Your task to perform on an android device: Open battery settings Image 0: 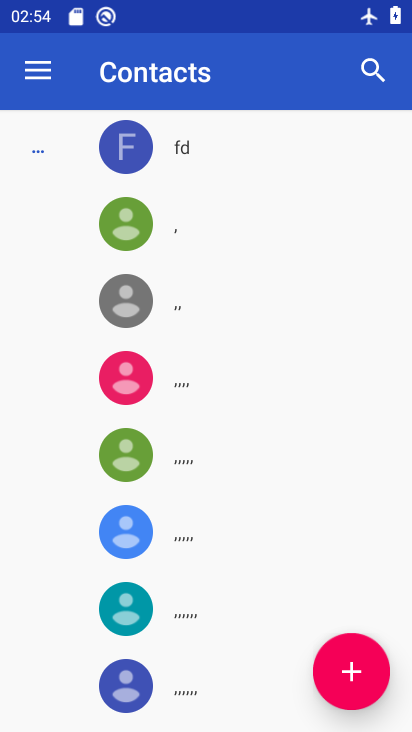
Step 0: press home button
Your task to perform on an android device: Open battery settings Image 1: 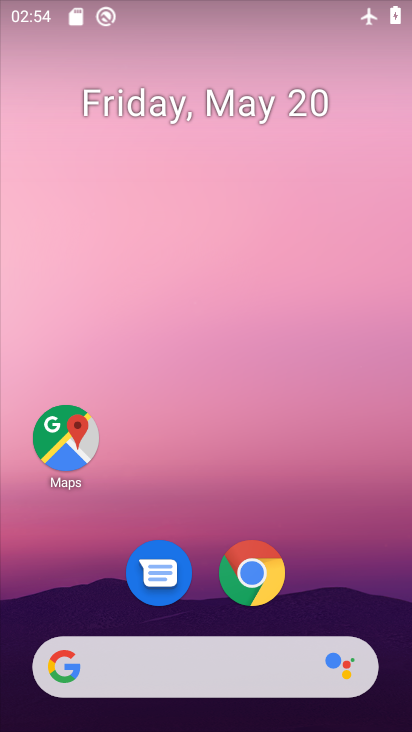
Step 1: drag from (199, 615) to (204, 152)
Your task to perform on an android device: Open battery settings Image 2: 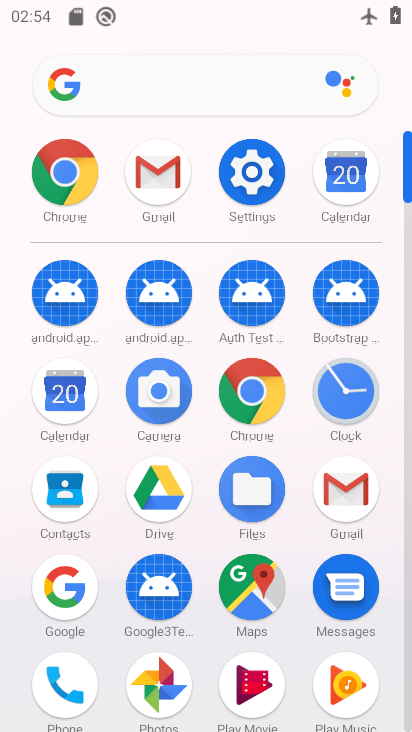
Step 2: click (258, 166)
Your task to perform on an android device: Open battery settings Image 3: 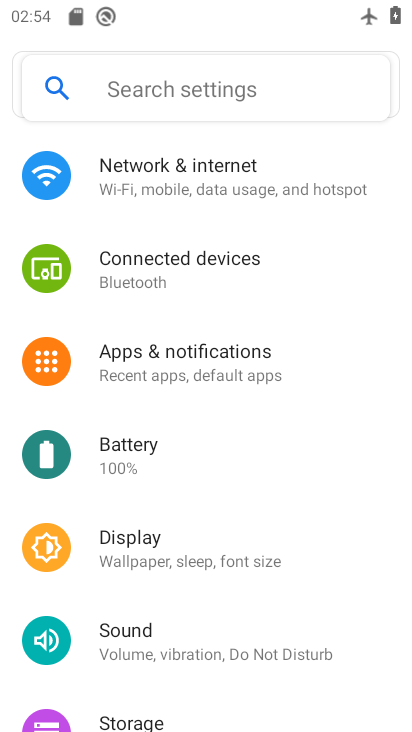
Step 3: click (162, 472)
Your task to perform on an android device: Open battery settings Image 4: 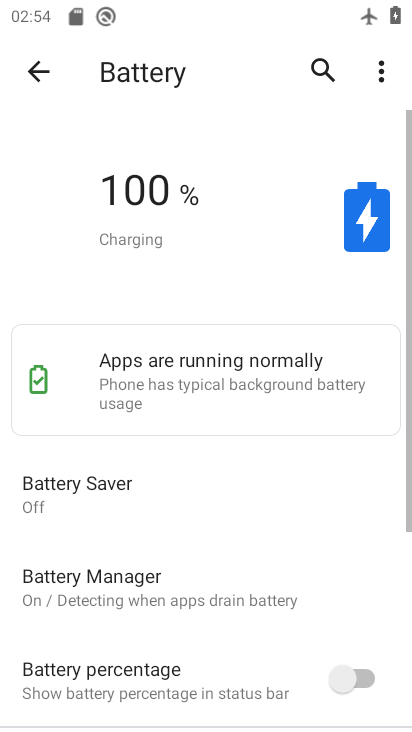
Step 4: task complete